Your task to perform on an android device: Find coffee shops on Maps Image 0: 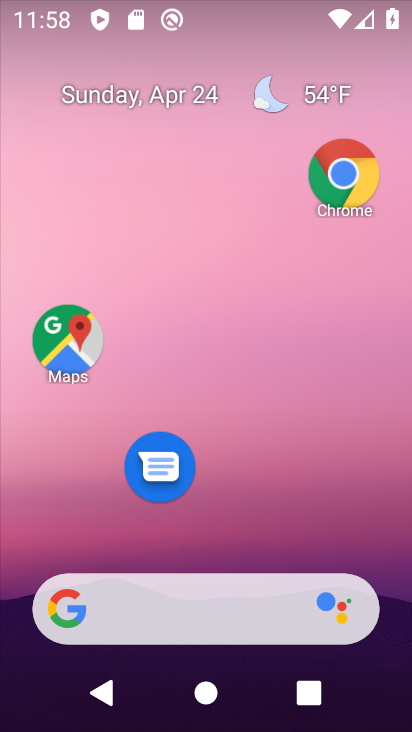
Step 0: drag from (195, 461) to (192, 13)
Your task to perform on an android device: Find coffee shops on Maps Image 1: 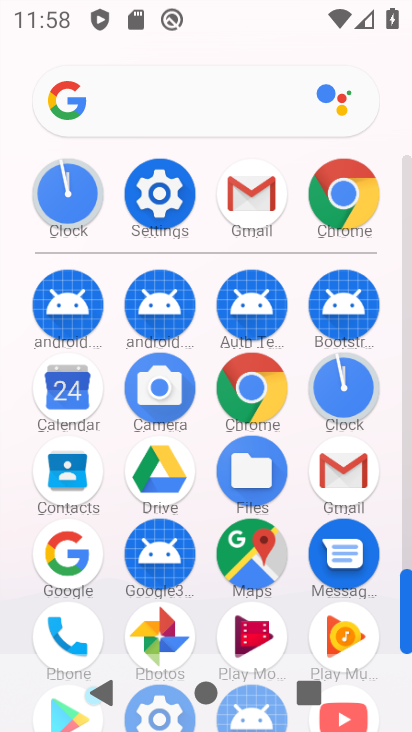
Step 1: click (240, 567)
Your task to perform on an android device: Find coffee shops on Maps Image 2: 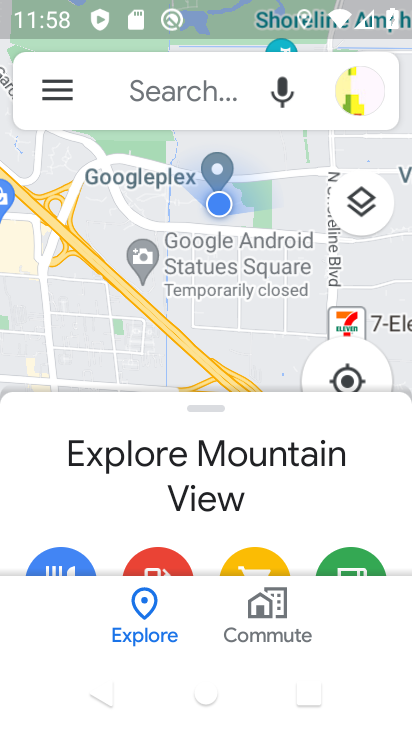
Step 2: drag from (175, 537) to (255, 268)
Your task to perform on an android device: Find coffee shops on Maps Image 3: 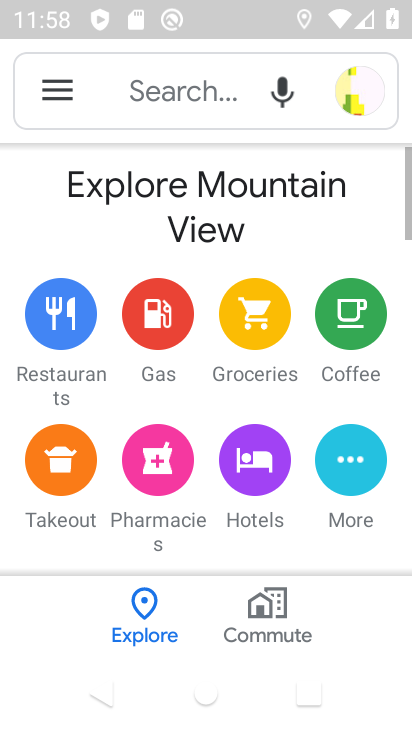
Step 3: click (162, 95)
Your task to perform on an android device: Find coffee shops on Maps Image 4: 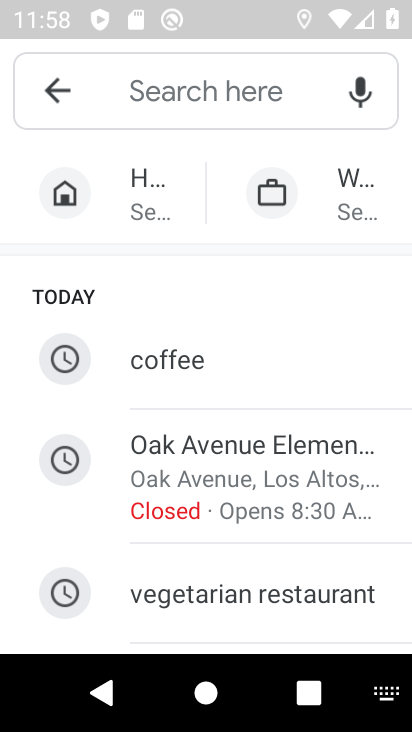
Step 4: click (164, 350)
Your task to perform on an android device: Find coffee shops on Maps Image 5: 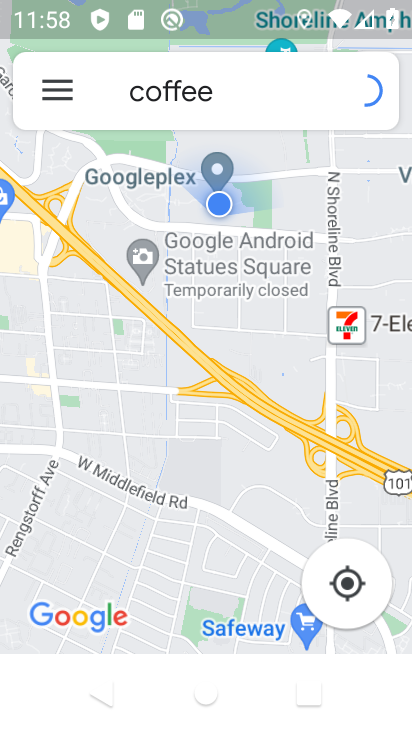
Step 5: task complete